Your task to perform on an android device: Check the weather Image 0: 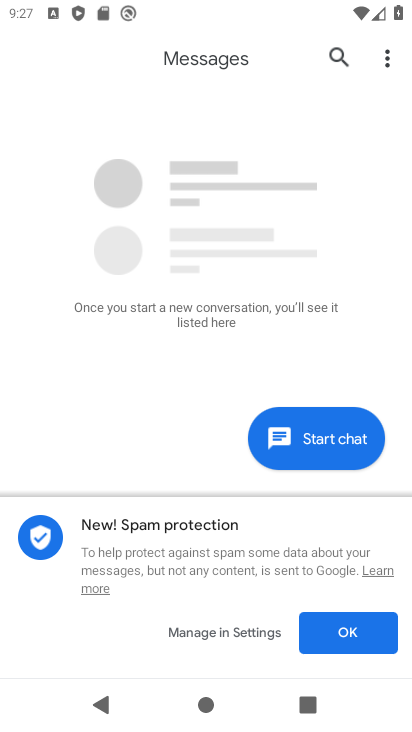
Step 0: press home button
Your task to perform on an android device: Check the weather Image 1: 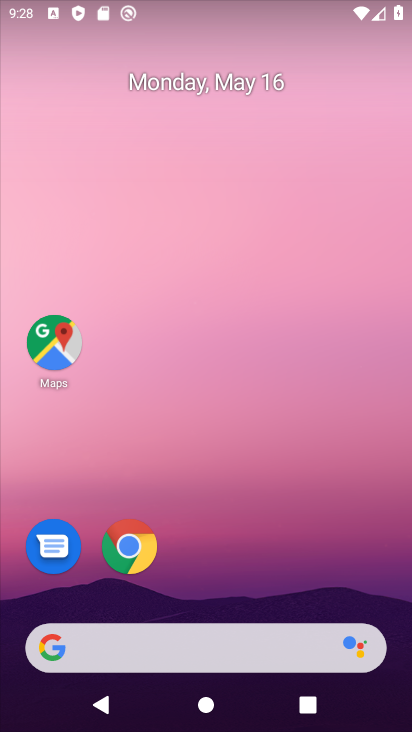
Step 1: click (167, 656)
Your task to perform on an android device: Check the weather Image 2: 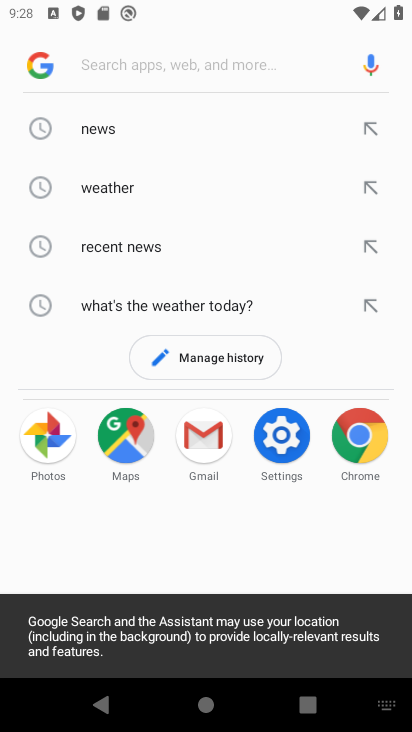
Step 2: click (187, 180)
Your task to perform on an android device: Check the weather Image 3: 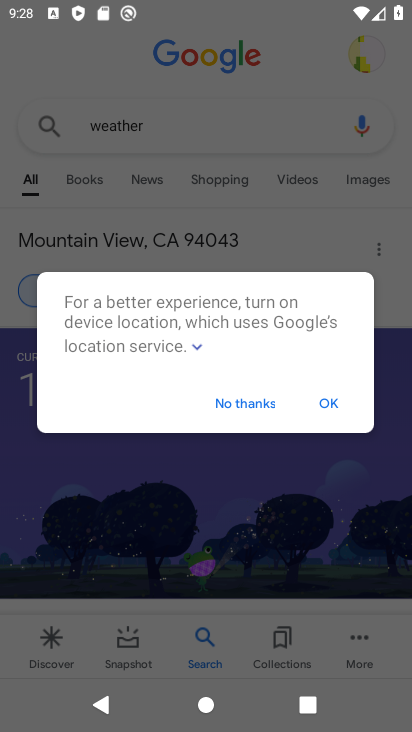
Step 3: task complete